Your task to perform on an android device: turn off airplane mode Image 0: 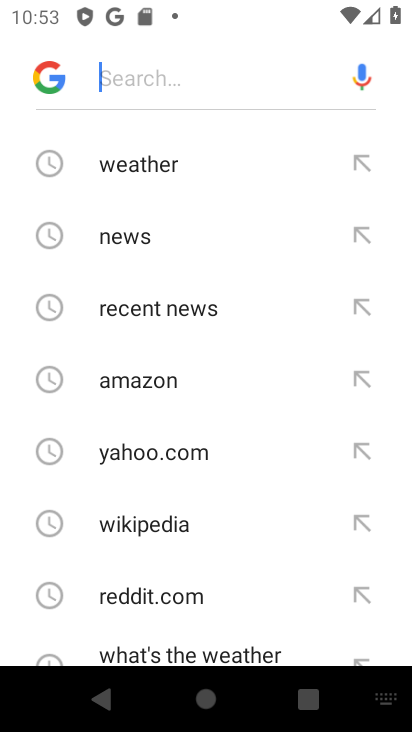
Step 0: press back button
Your task to perform on an android device: turn off airplane mode Image 1: 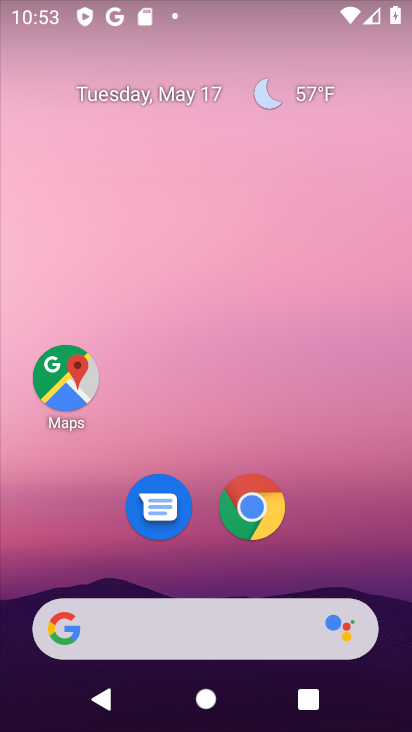
Step 1: drag from (69, 578) to (187, 79)
Your task to perform on an android device: turn off airplane mode Image 2: 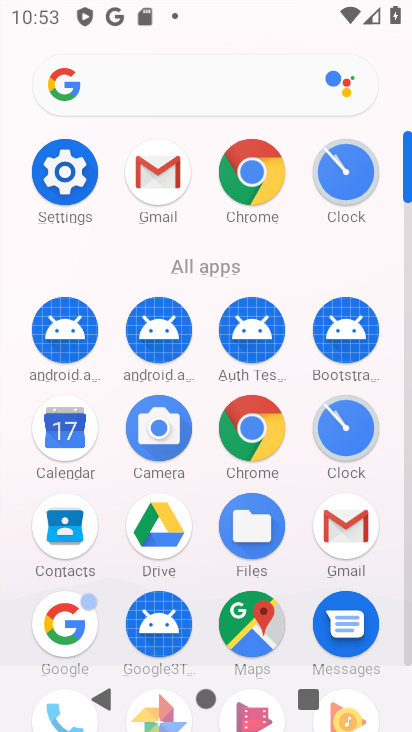
Step 2: drag from (169, 544) to (228, 322)
Your task to perform on an android device: turn off airplane mode Image 3: 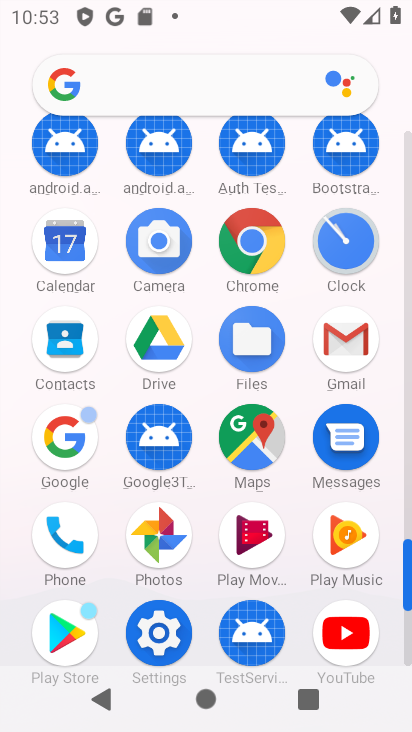
Step 3: click (169, 648)
Your task to perform on an android device: turn off airplane mode Image 4: 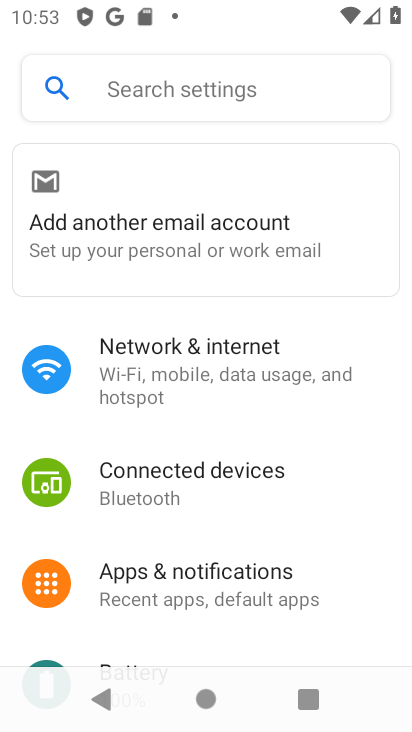
Step 4: click (248, 375)
Your task to perform on an android device: turn off airplane mode Image 5: 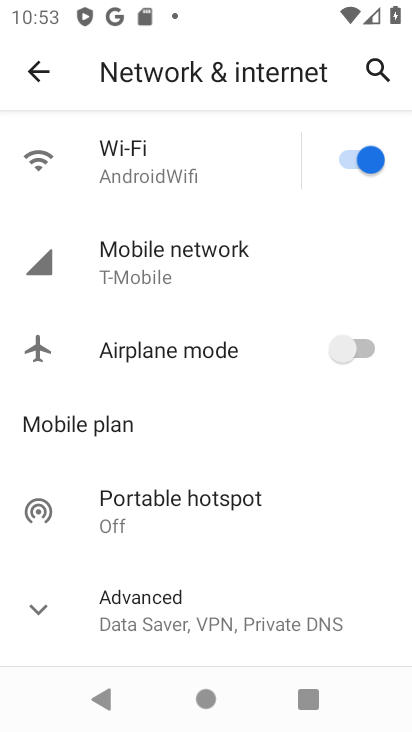
Step 5: task complete